Your task to perform on an android device: Is it going to rain this weekend? Image 0: 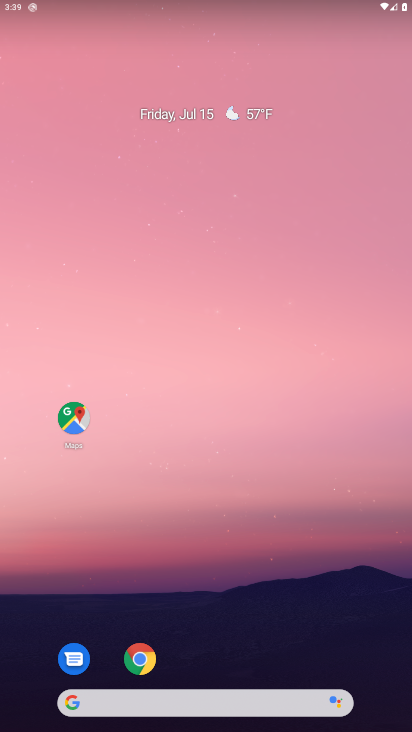
Step 0: click (107, 710)
Your task to perform on an android device: Is it going to rain this weekend? Image 1: 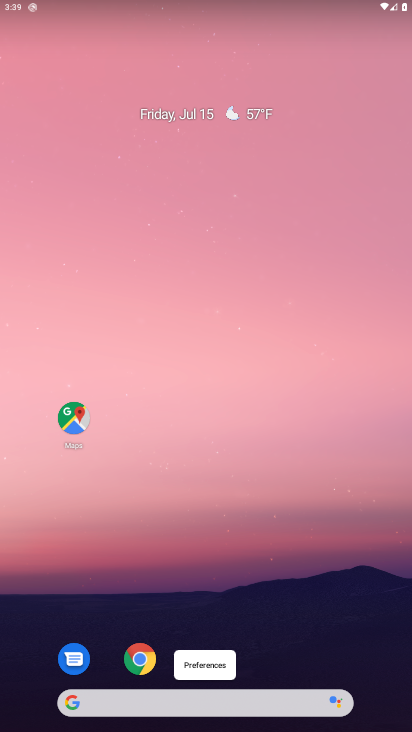
Step 1: click (133, 704)
Your task to perform on an android device: Is it going to rain this weekend? Image 2: 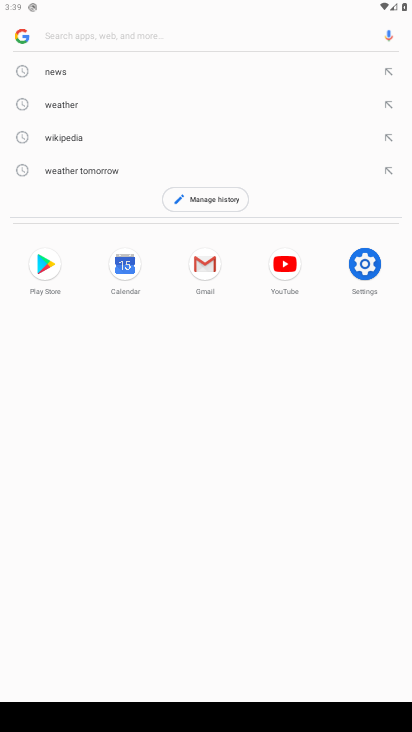
Step 2: type "Is it going to rain this weekend?"
Your task to perform on an android device: Is it going to rain this weekend? Image 3: 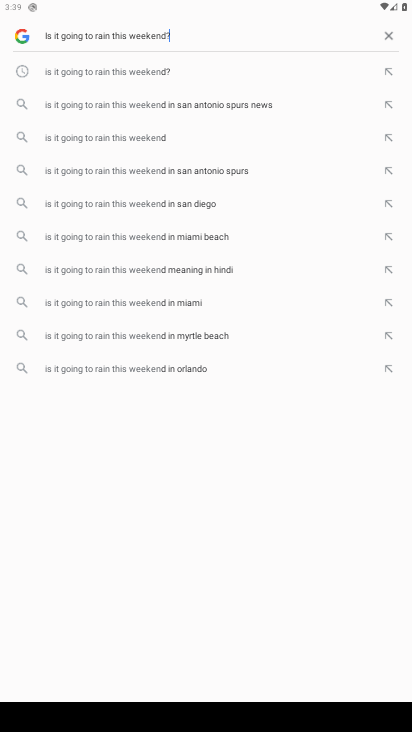
Step 3: type ""
Your task to perform on an android device: Is it going to rain this weekend? Image 4: 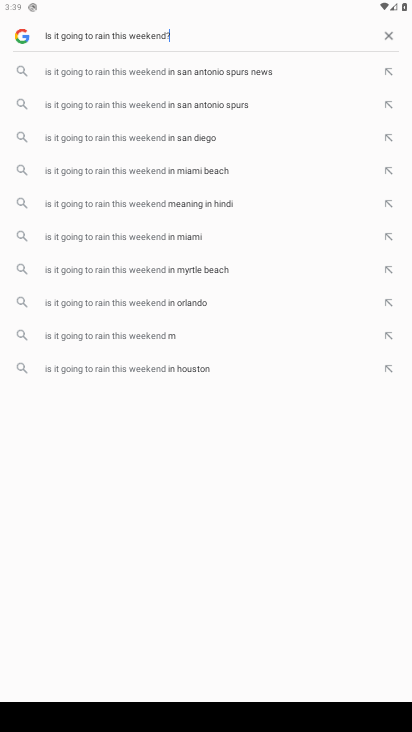
Step 4: type ""
Your task to perform on an android device: Is it going to rain this weekend? Image 5: 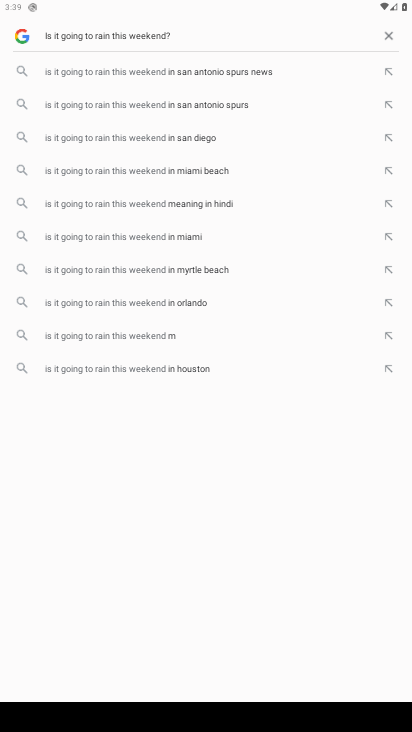
Step 5: type ""
Your task to perform on an android device: Is it going to rain this weekend? Image 6: 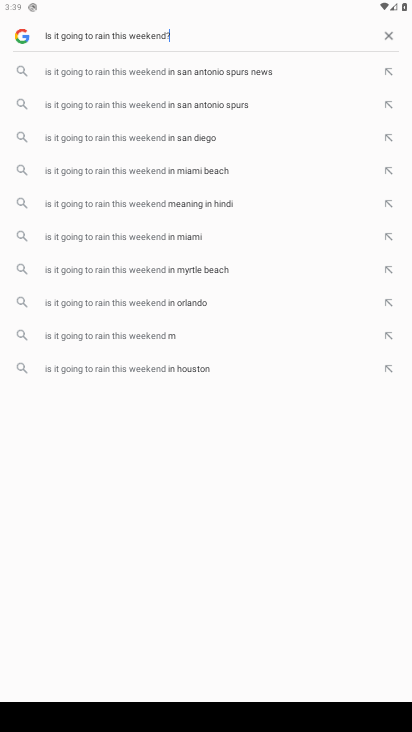
Step 6: task complete